Your task to perform on an android device: open app "Spotify: Music and Podcasts" (install if not already installed), go to login, and select forgot password Image 0: 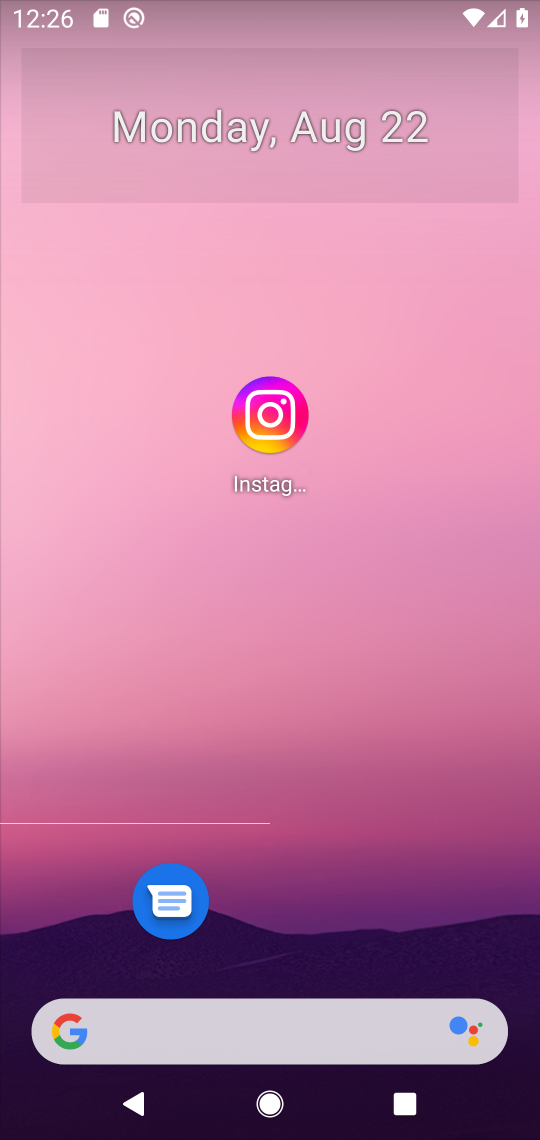
Step 0: drag from (359, 954) to (519, 15)
Your task to perform on an android device: open app "Spotify: Music and Podcasts" (install if not already installed), go to login, and select forgot password Image 1: 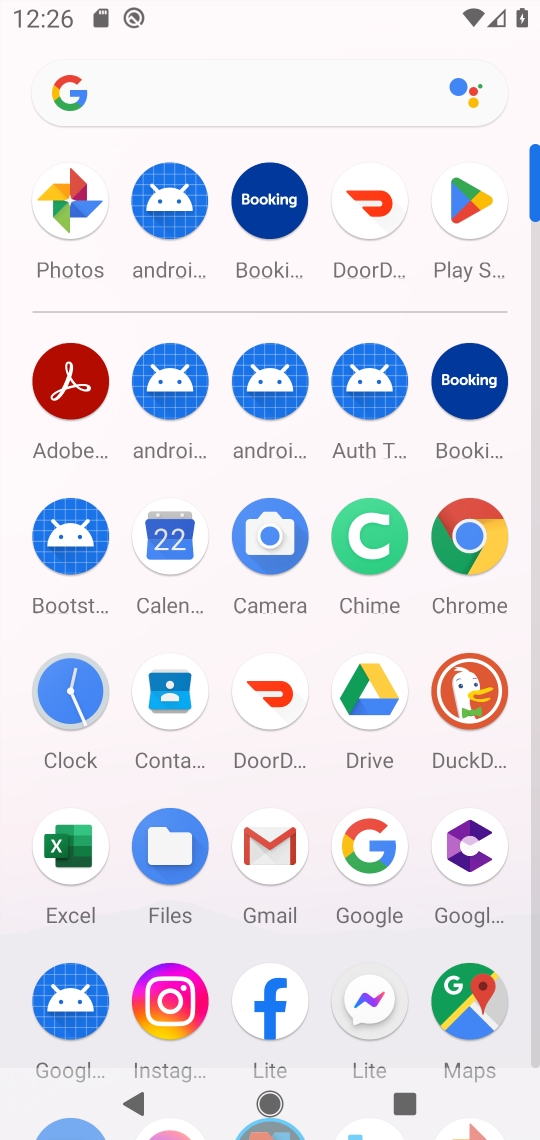
Step 1: click (440, 212)
Your task to perform on an android device: open app "Spotify: Music and Podcasts" (install if not already installed), go to login, and select forgot password Image 2: 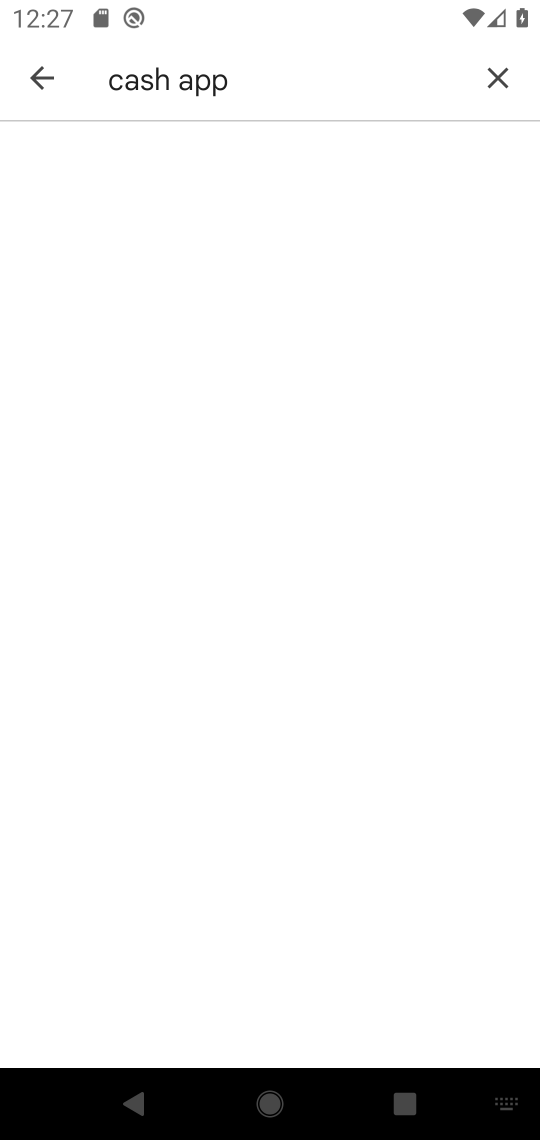
Step 2: click (492, 90)
Your task to perform on an android device: open app "Spotify: Music and Podcasts" (install if not already installed), go to login, and select forgot password Image 3: 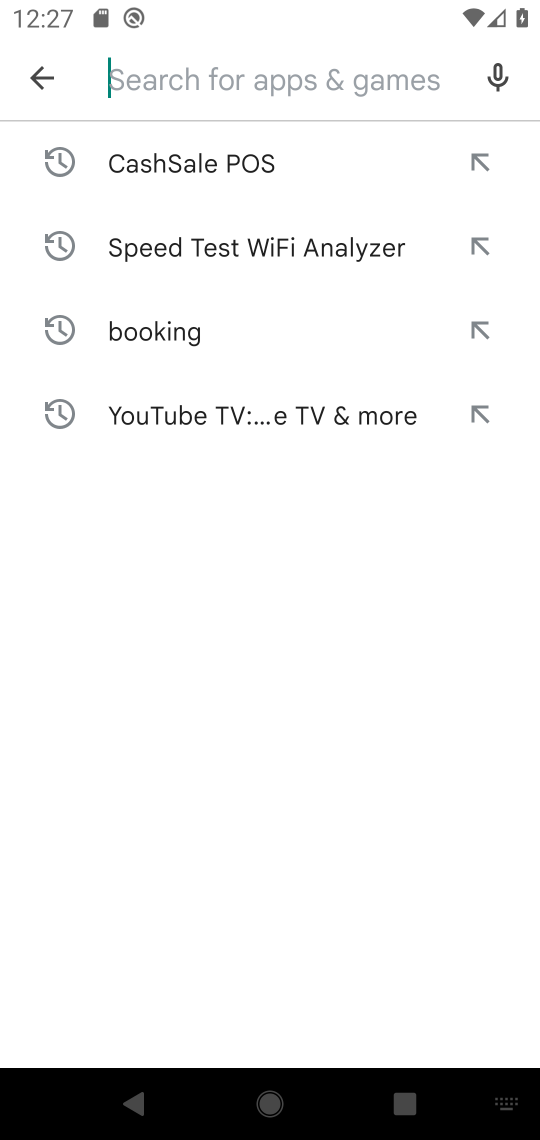
Step 3: type "spotify"
Your task to perform on an android device: open app "Spotify: Music and Podcasts" (install if not already installed), go to login, and select forgot password Image 4: 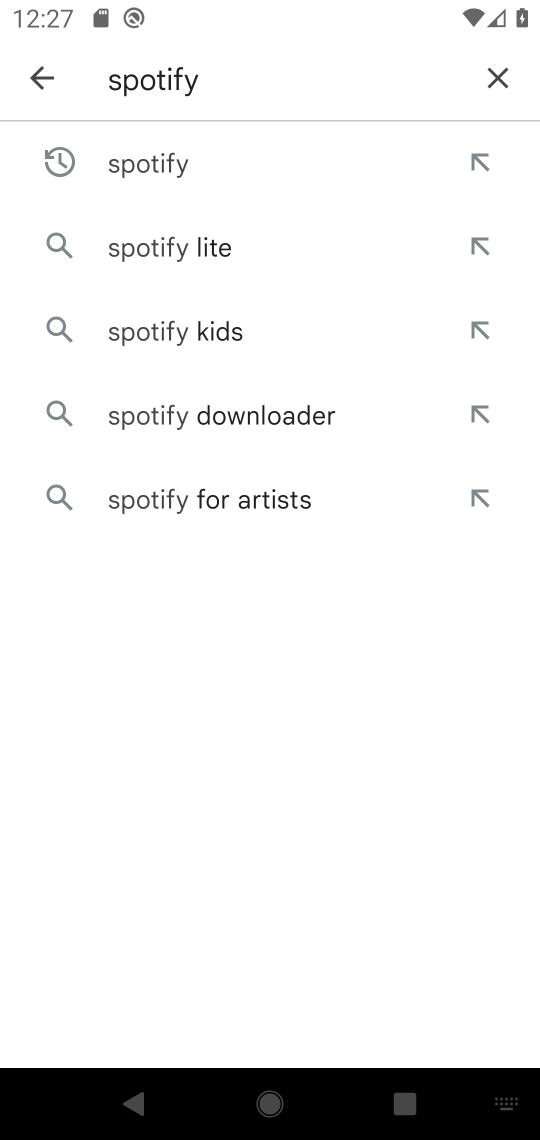
Step 4: click (269, 183)
Your task to perform on an android device: open app "Spotify: Music and Podcasts" (install if not already installed), go to login, and select forgot password Image 5: 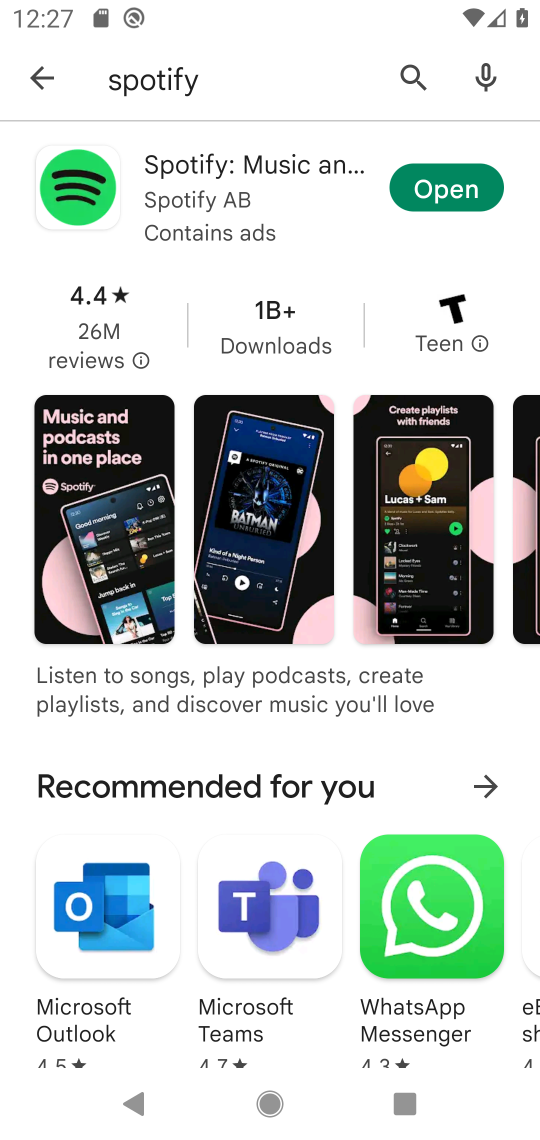
Step 5: click (405, 175)
Your task to perform on an android device: open app "Spotify: Music and Podcasts" (install if not already installed), go to login, and select forgot password Image 6: 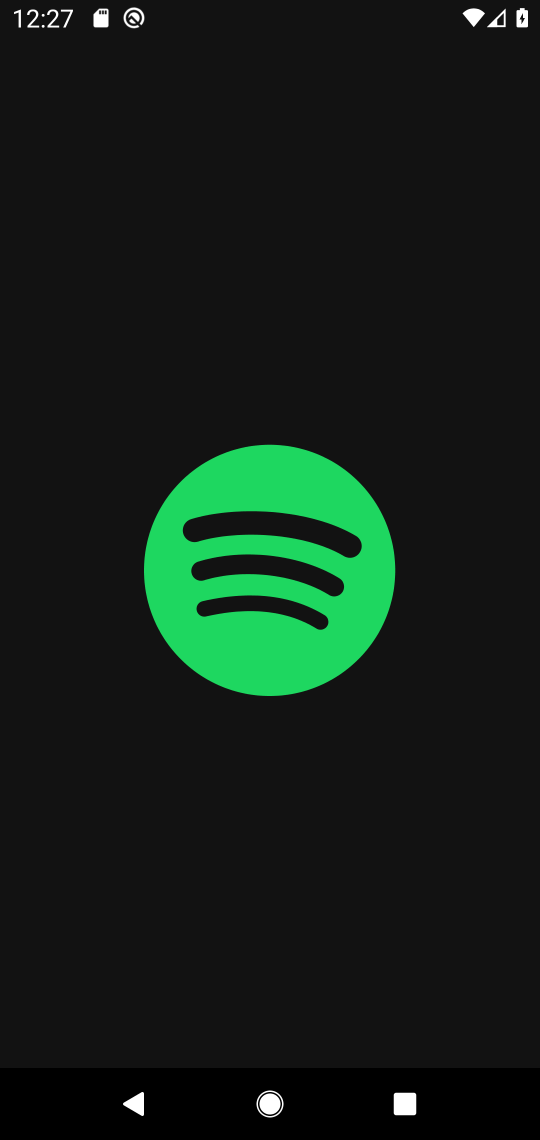
Step 6: task complete